Your task to perform on an android device: set default search engine in the chrome app Image 0: 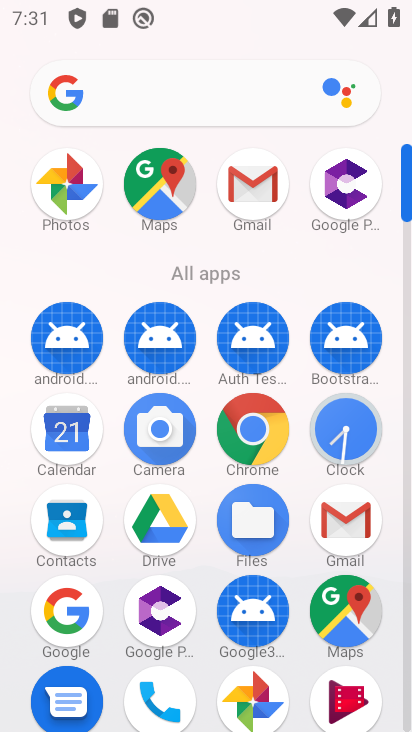
Step 0: click (208, 404)
Your task to perform on an android device: set default search engine in the chrome app Image 1: 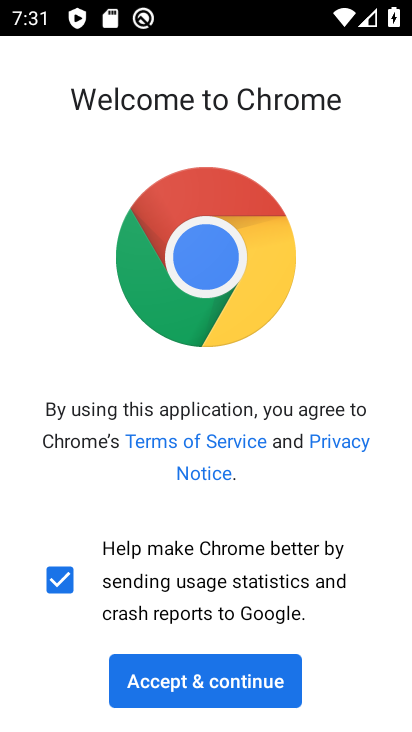
Step 1: click (221, 683)
Your task to perform on an android device: set default search engine in the chrome app Image 2: 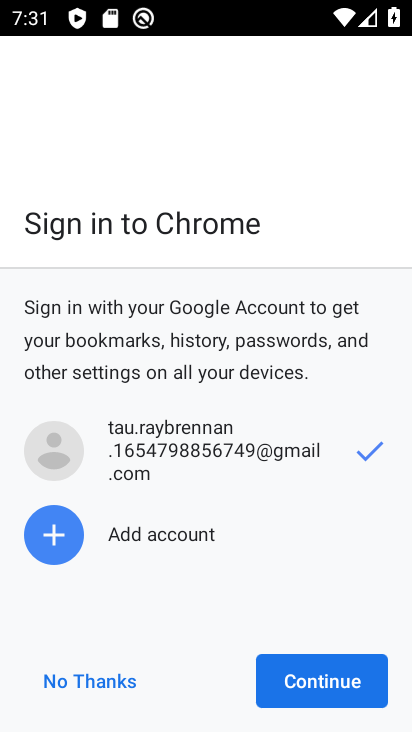
Step 2: click (340, 698)
Your task to perform on an android device: set default search engine in the chrome app Image 3: 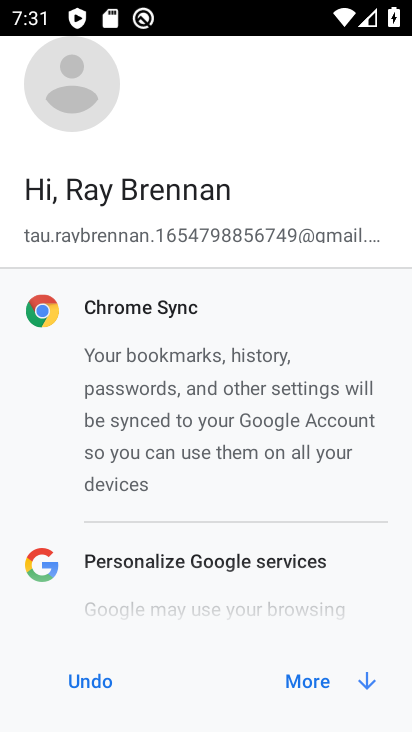
Step 3: drag from (208, 372) to (307, 3)
Your task to perform on an android device: set default search engine in the chrome app Image 4: 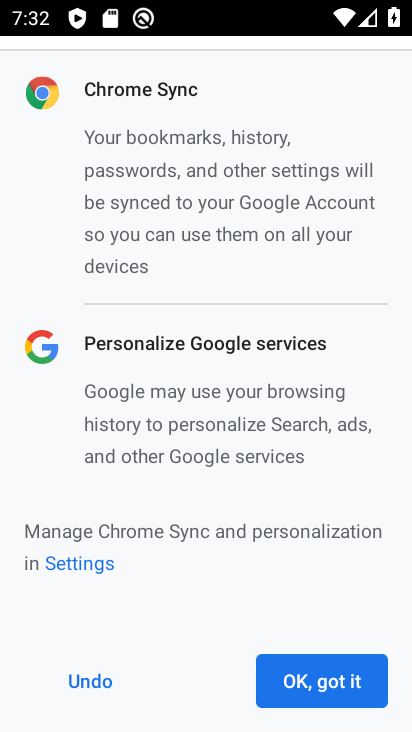
Step 4: drag from (241, 468) to (244, 12)
Your task to perform on an android device: set default search engine in the chrome app Image 5: 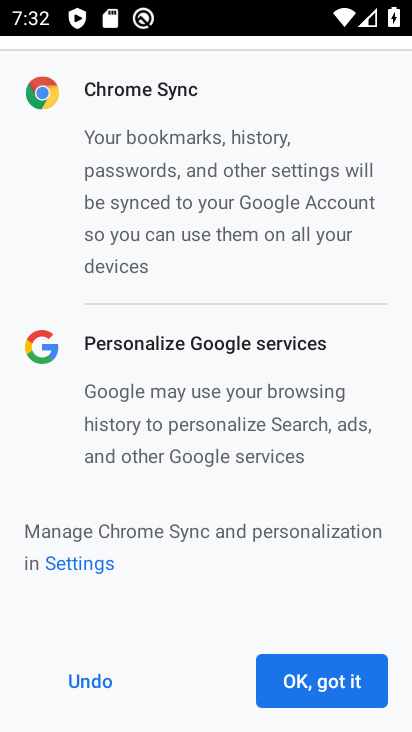
Step 5: click (284, 695)
Your task to perform on an android device: set default search engine in the chrome app Image 6: 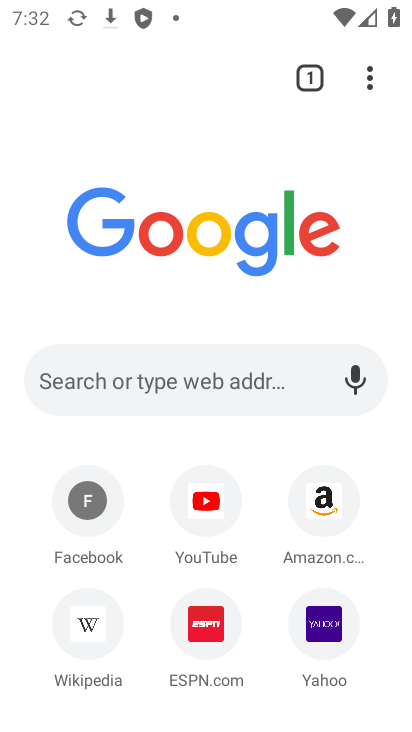
Step 6: click (382, 71)
Your task to perform on an android device: set default search engine in the chrome app Image 7: 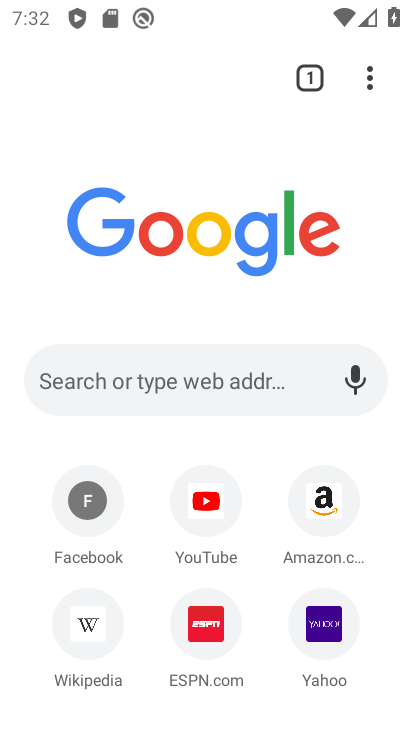
Step 7: click (367, 92)
Your task to perform on an android device: set default search engine in the chrome app Image 8: 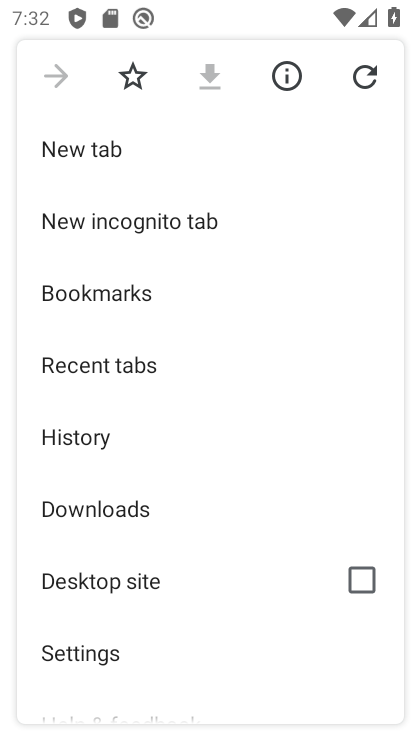
Step 8: click (107, 644)
Your task to perform on an android device: set default search engine in the chrome app Image 9: 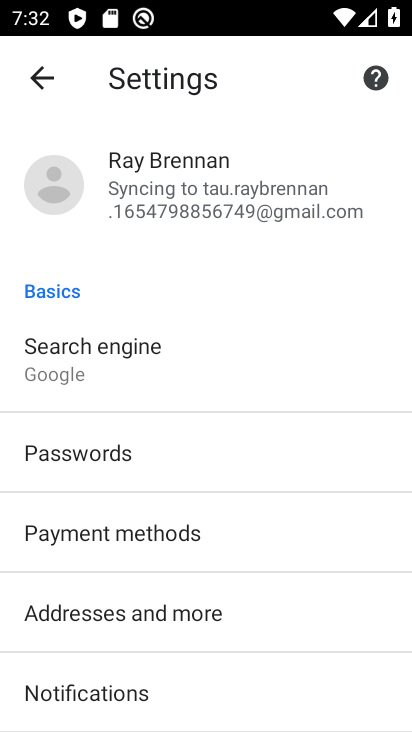
Step 9: click (125, 366)
Your task to perform on an android device: set default search engine in the chrome app Image 10: 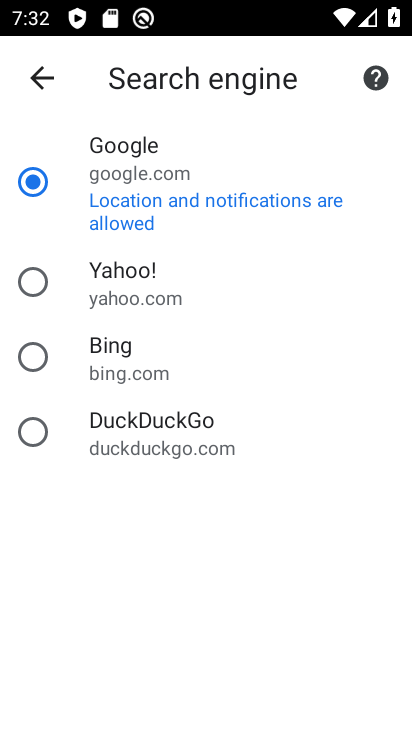
Step 10: task complete